Your task to perform on an android device: Search for seafood restaurants on Google Maps Image 0: 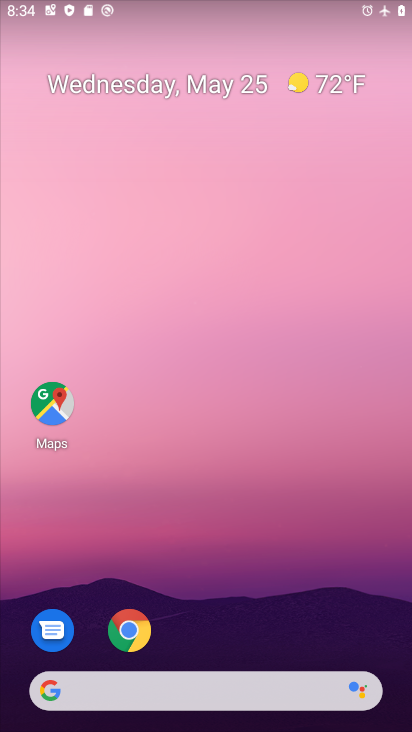
Step 0: click (48, 403)
Your task to perform on an android device: Search for seafood restaurants on Google Maps Image 1: 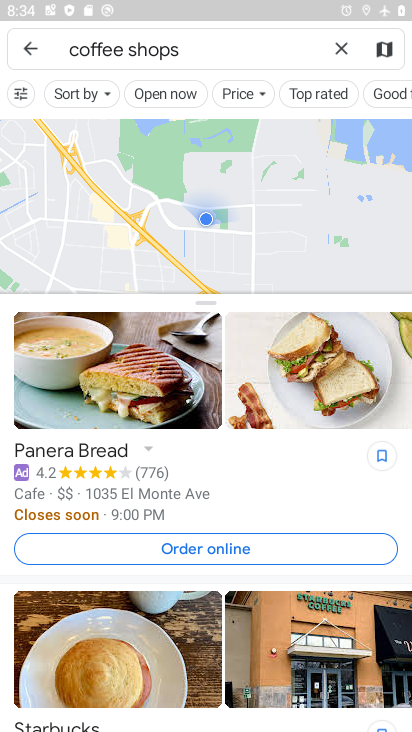
Step 1: click (337, 45)
Your task to perform on an android device: Search for seafood restaurants on Google Maps Image 2: 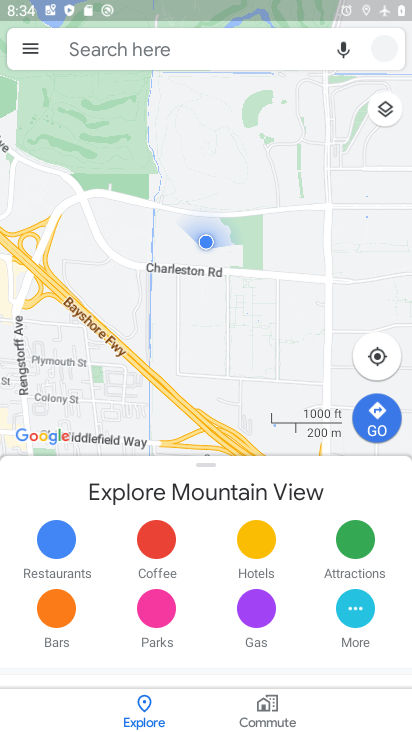
Step 2: click (164, 55)
Your task to perform on an android device: Search for seafood restaurants on Google Maps Image 3: 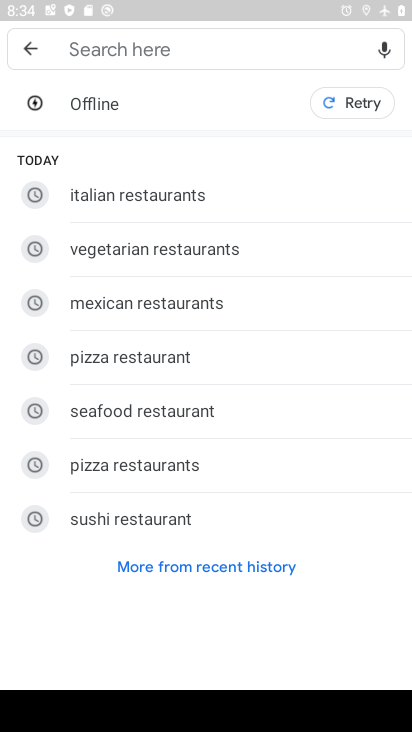
Step 3: click (168, 407)
Your task to perform on an android device: Search for seafood restaurants on Google Maps Image 4: 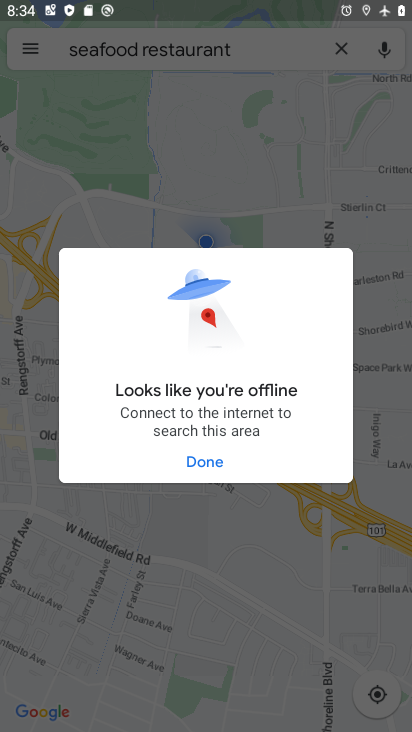
Step 4: task complete